Your task to perform on an android device: turn on improve location accuracy Image 0: 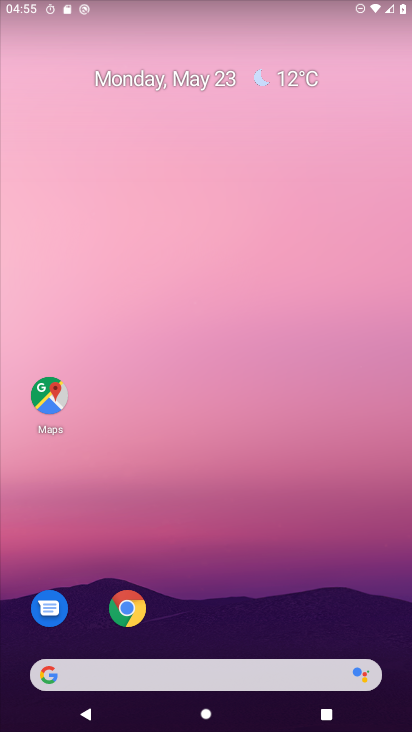
Step 0: drag from (305, 607) to (196, 72)
Your task to perform on an android device: turn on improve location accuracy Image 1: 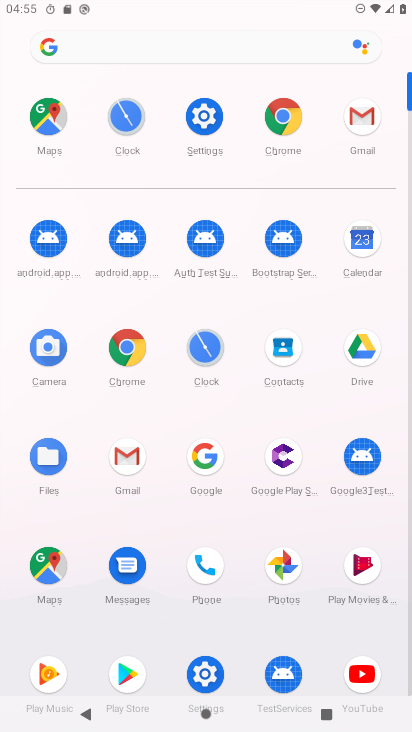
Step 1: click (216, 114)
Your task to perform on an android device: turn on improve location accuracy Image 2: 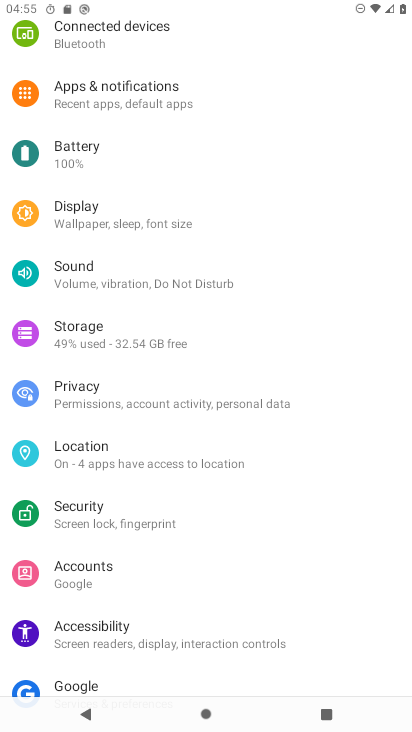
Step 2: click (158, 468)
Your task to perform on an android device: turn on improve location accuracy Image 3: 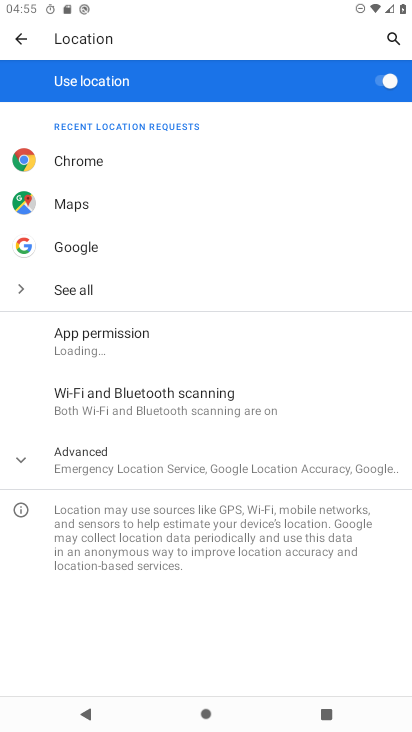
Step 3: click (171, 453)
Your task to perform on an android device: turn on improve location accuracy Image 4: 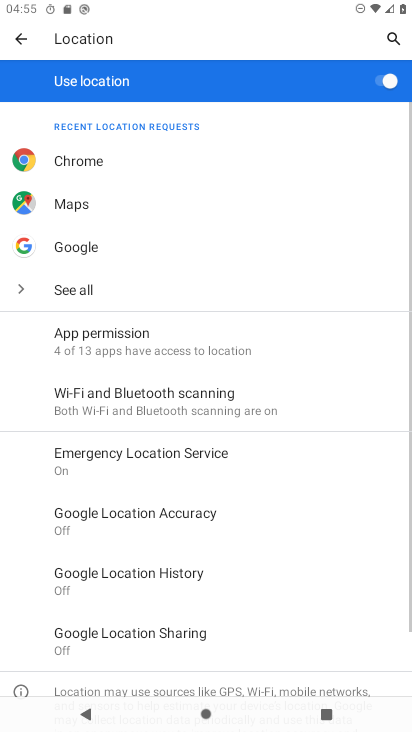
Step 4: click (163, 519)
Your task to perform on an android device: turn on improve location accuracy Image 5: 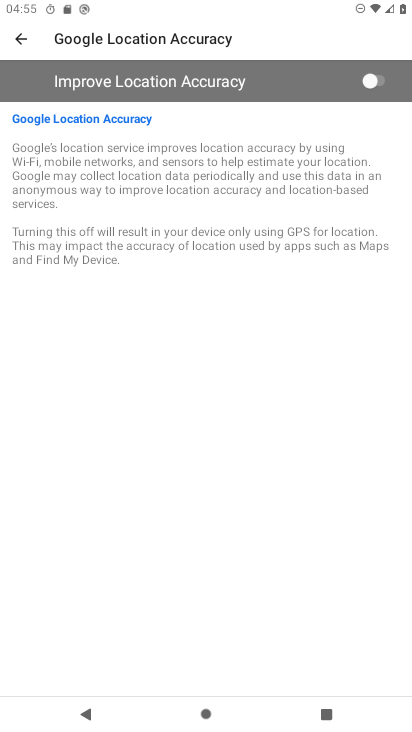
Step 5: click (373, 77)
Your task to perform on an android device: turn on improve location accuracy Image 6: 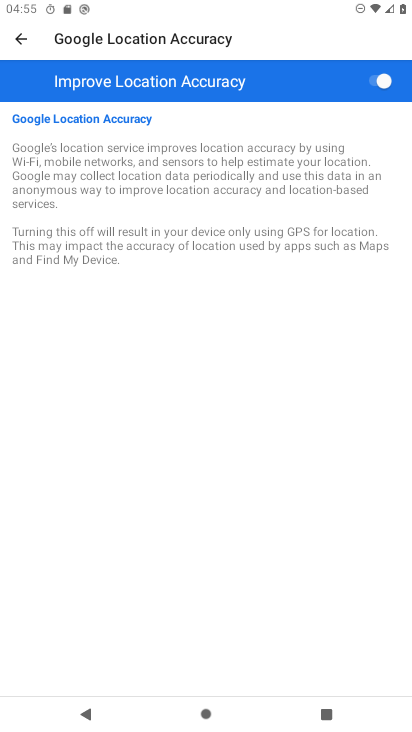
Step 6: task complete